Your task to perform on an android device: check storage Image 0: 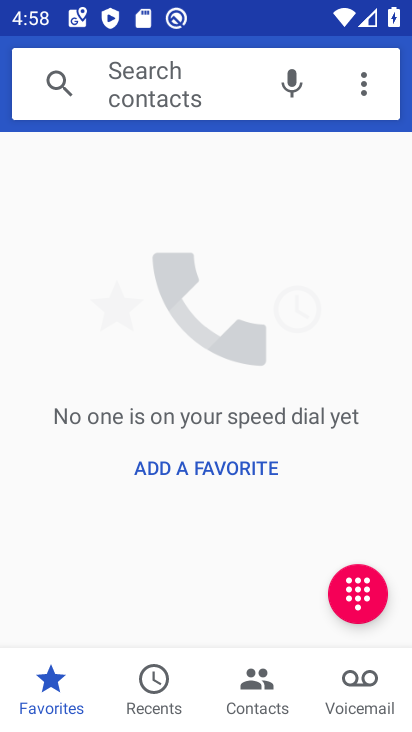
Step 0: press home button
Your task to perform on an android device: check storage Image 1: 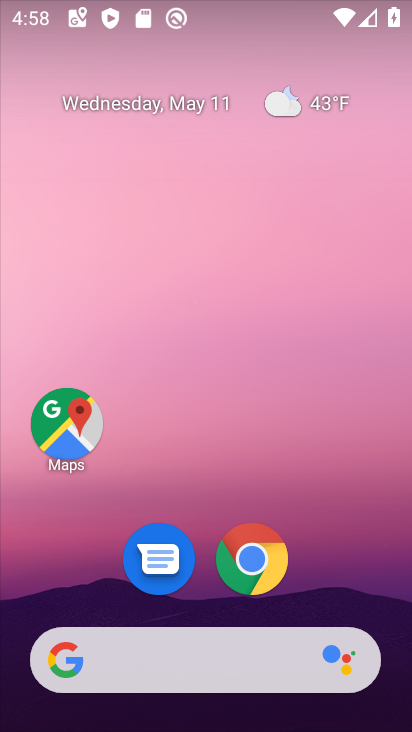
Step 1: drag from (335, 572) to (348, 161)
Your task to perform on an android device: check storage Image 2: 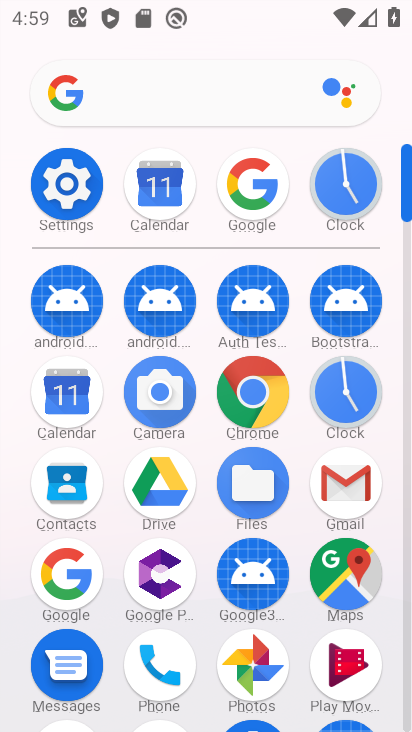
Step 2: press home button
Your task to perform on an android device: check storage Image 3: 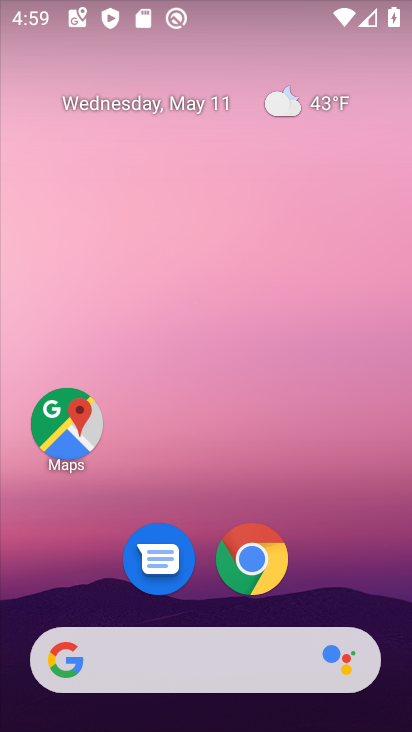
Step 3: drag from (305, 602) to (239, 247)
Your task to perform on an android device: check storage Image 4: 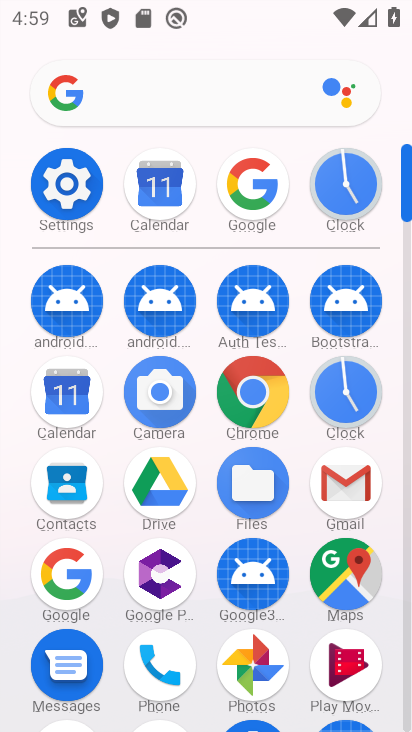
Step 4: click (75, 202)
Your task to perform on an android device: check storage Image 5: 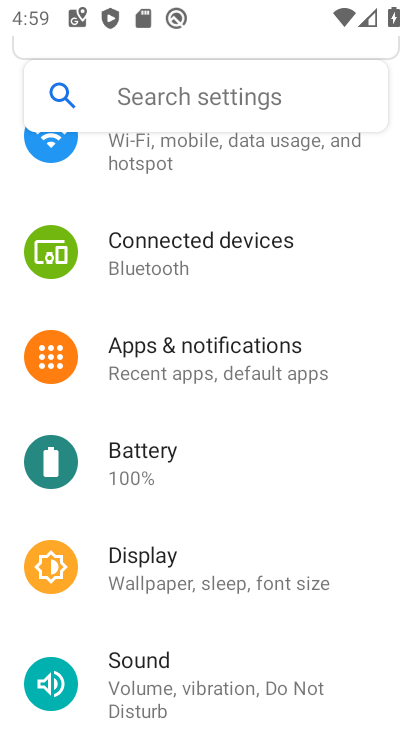
Step 5: drag from (186, 327) to (184, 589)
Your task to perform on an android device: check storage Image 6: 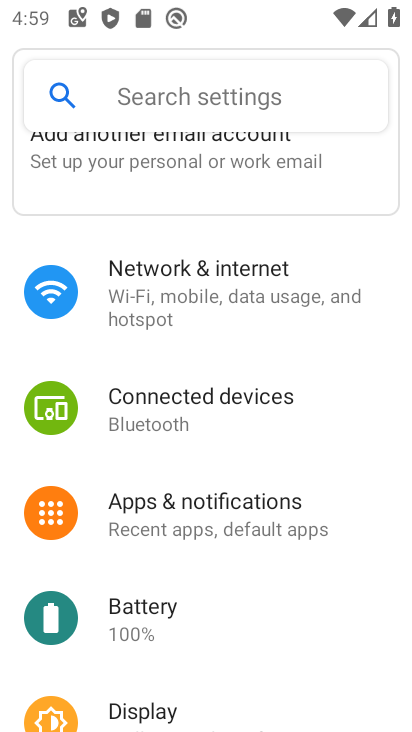
Step 6: drag from (195, 599) to (214, 252)
Your task to perform on an android device: check storage Image 7: 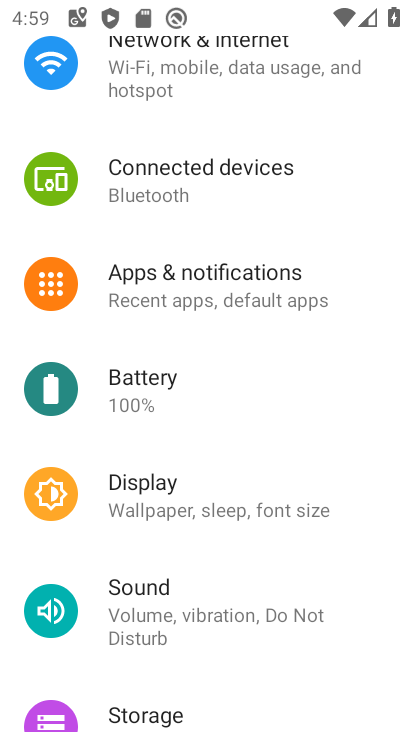
Step 7: drag from (200, 598) to (228, 230)
Your task to perform on an android device: check storage Image 8: 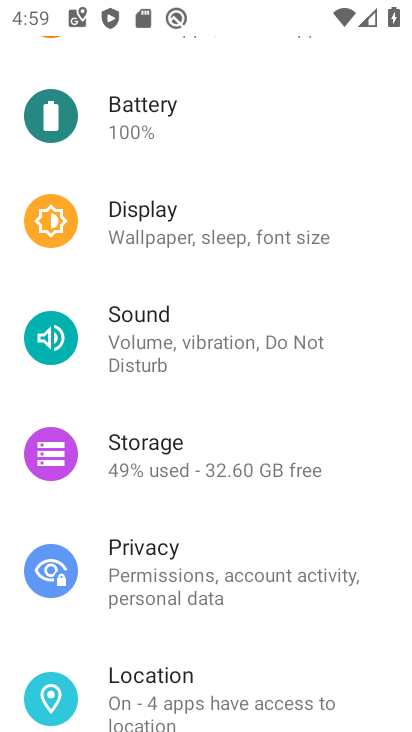
Step 8: click (182, 487)
Your task to perform on an android device: check storage Image 9: 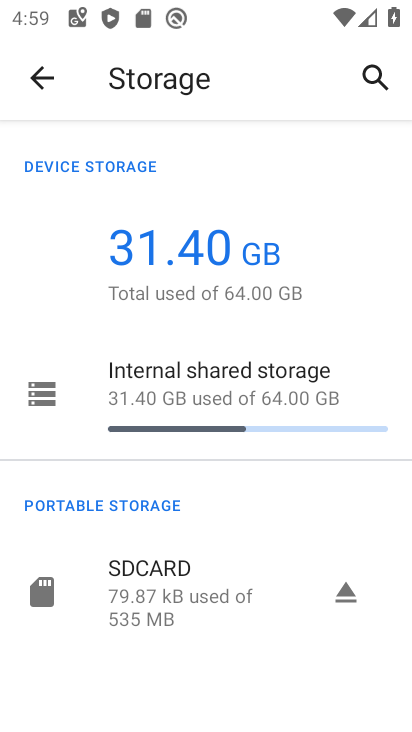
Step 9: task complete